Your task to perform on an android device: Open calendar and show me the first week of next month Image 0: 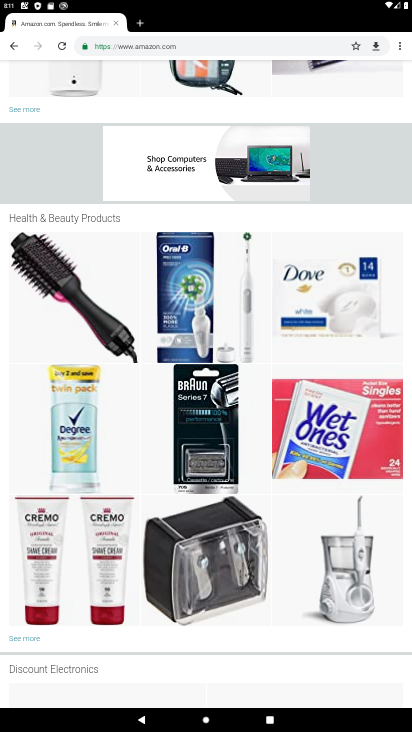
Step 0: press home button
Your task to perform on an android device: Open calendar and show me the first week of next month Image 1: 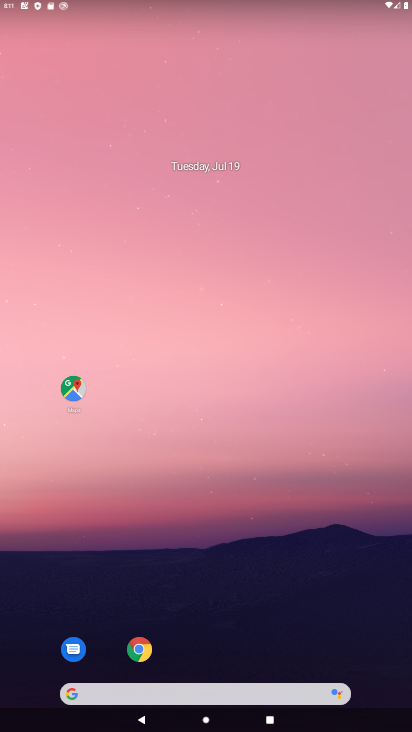
Step 1: drag from (240, 564) to (286, 0)
Your task to perform on an android device: Open calendar and show me the first week of next month Image 2: 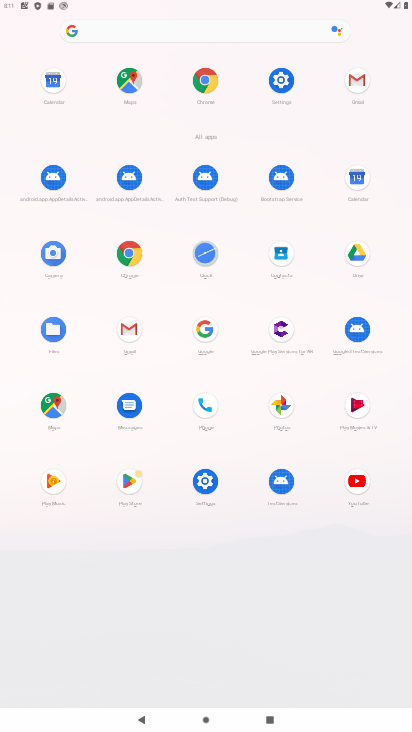
Step 2: click (355, 181)
Your task to perform on an android device: Open calendar and show me the first week of next month Image 3: 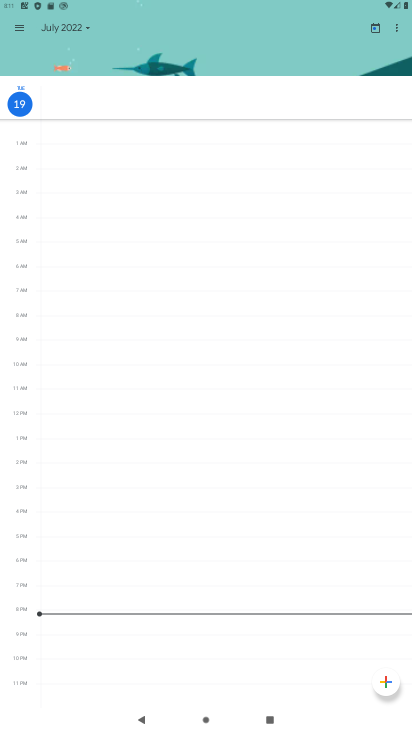
Step 3: click (24, 25)
Your task to perform on an android device: Open calendar and show me the first week of next month Image 4: 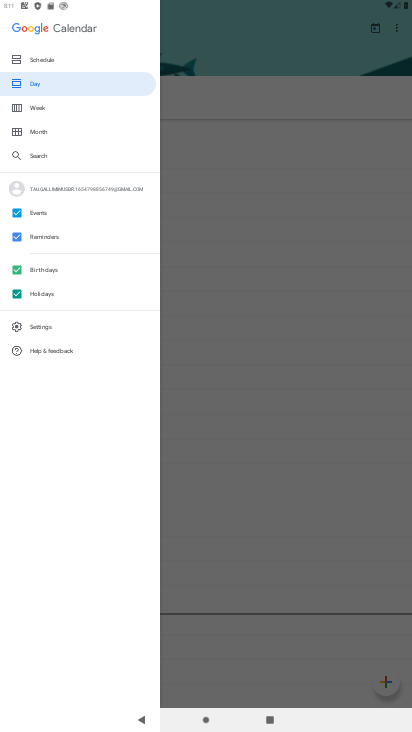
Step 4: click (35, 105)
Your task to perform on an android device: Open calendar and show me the first week of next month Image 5: 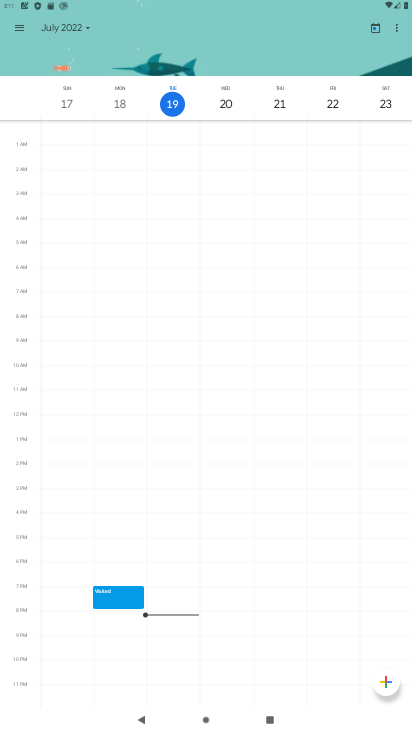
Step 5: drag from (380, 97) to (2, 97)
Your task to perform on an android device: Open calendar and show me the first week of next month Image 6: 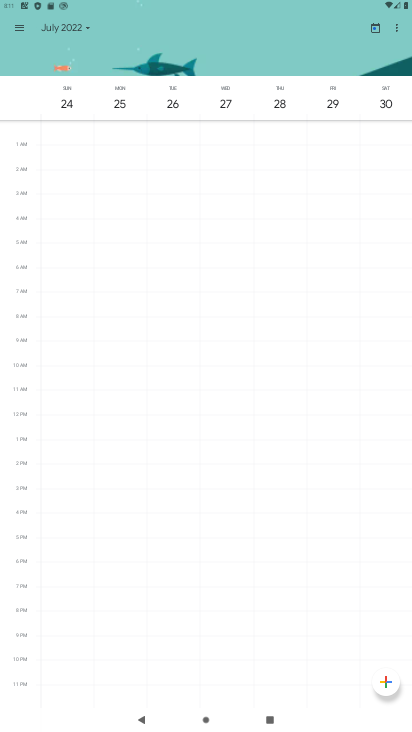
Step 6: drag from (389, 102) to (77, 108)
Your task to perform on an android device: Open calendar and show me the first week of next month Image 7: 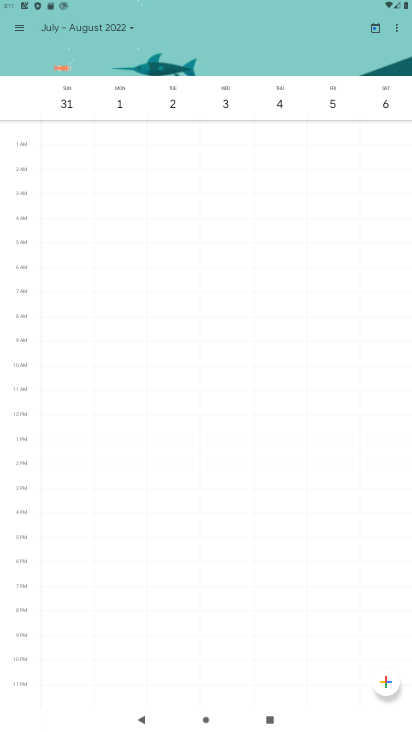
Step 7: click (119, 100)
Your task to perform on an android device: Open calendar and show me the first week of next month Image 8: 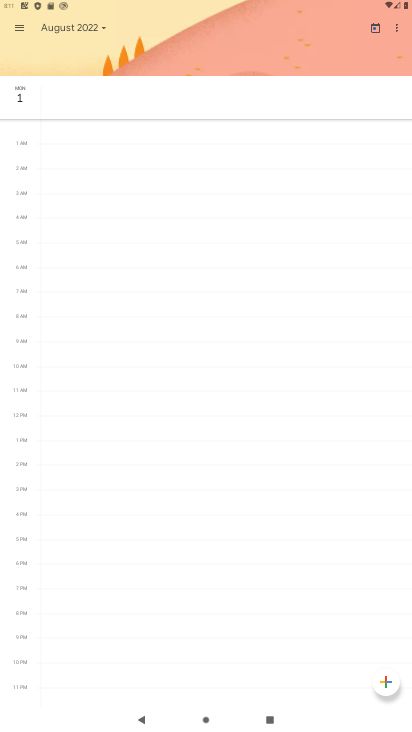
Step 8: click (26, 105)
Your task to perform on an android device: Open calendar and show me the first week of next month Image 9: 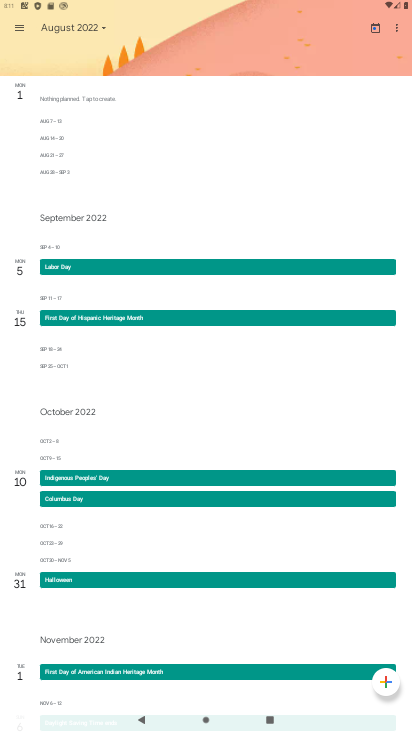
Step 9: task complete